Your task to perform on an android device: change keyboard looks Image 0: 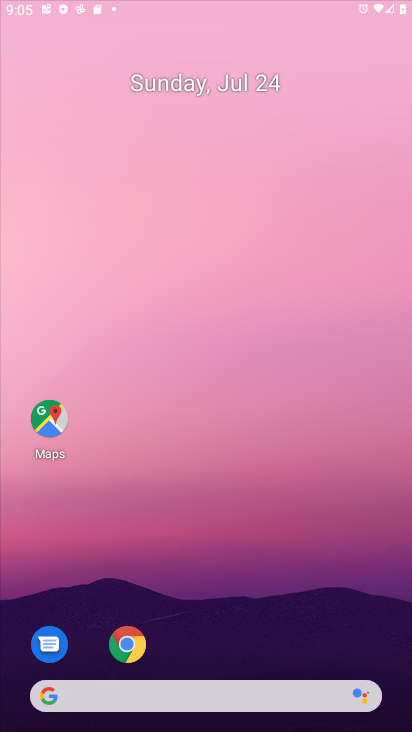
Step 0: drag from (303, 614) to (307, 107)
Your task to perform on an android device: change keyboard looks Image 1: 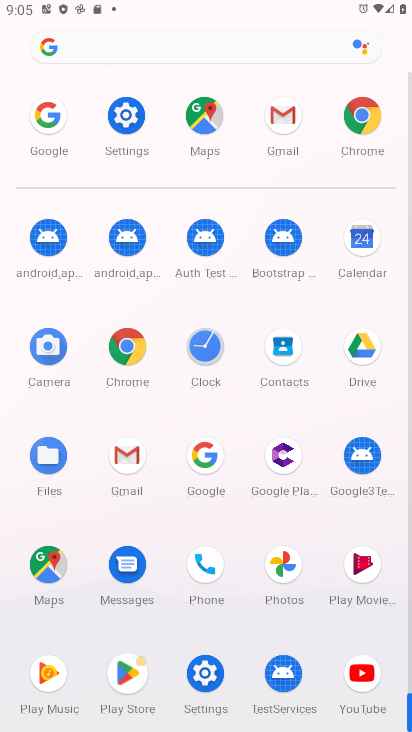
Step 1: click (198, 662)
Your task to perform on an android device: change keyboard looks Image 2: 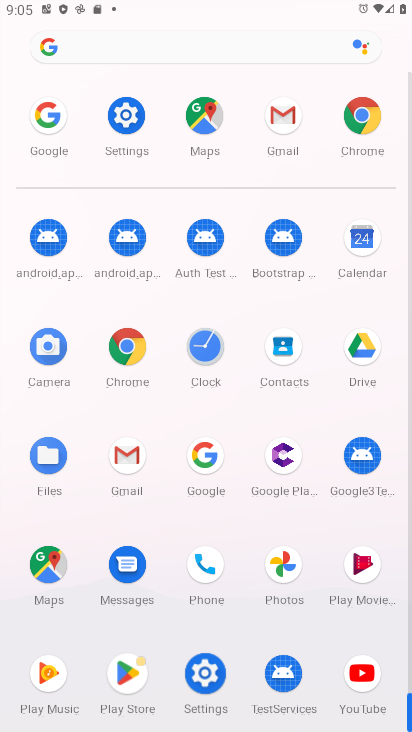
Step 2: click (198, 663)
Your task to perform on an android device: change keyboard looks Image 3: 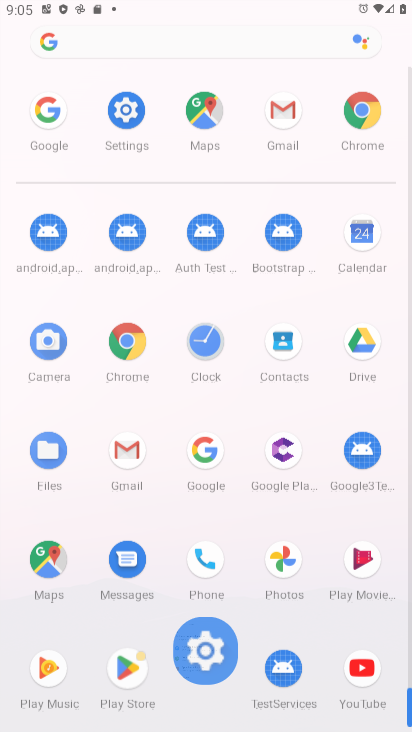
Step 3: click (197, 664)
Your task to perform on an android device: change keyboard looks Image 4: 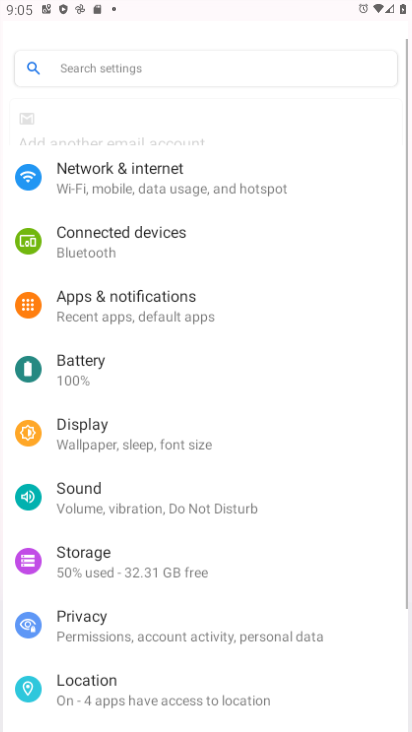
Step 4: click (197, 665)
Your task to perform on an android device: change keyboard looks Image 5: 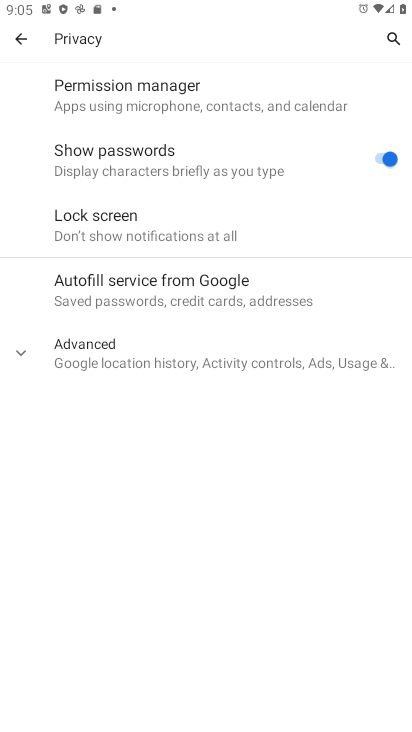
Step 5: drag from (154, 591) to (188, 310)
Your task to perform on an android device: change keyboard looks Image 6: 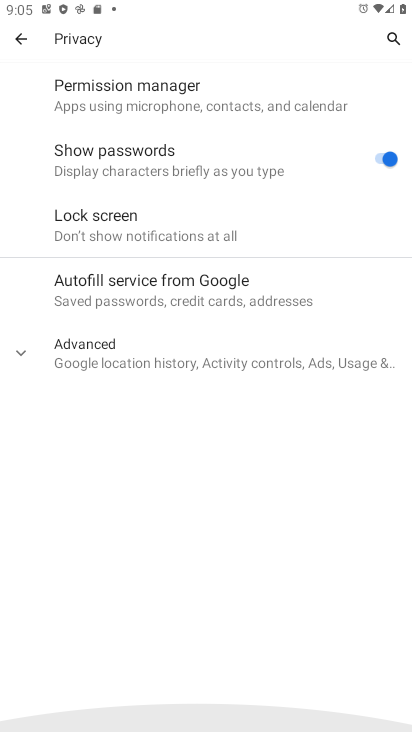
Step 6: drag from (207, 565) to (212, 290)
Your task to perform on an android device: change keyboard looks Image 7: 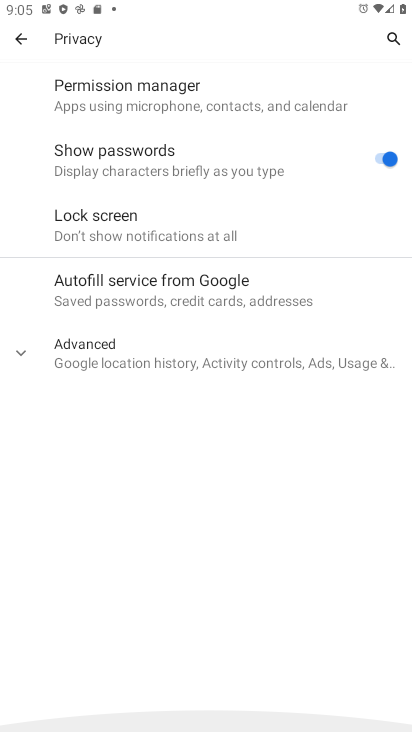
Step 7: click (205, 396)
Your task to perform on an android device: change keyboard looks Image 8: 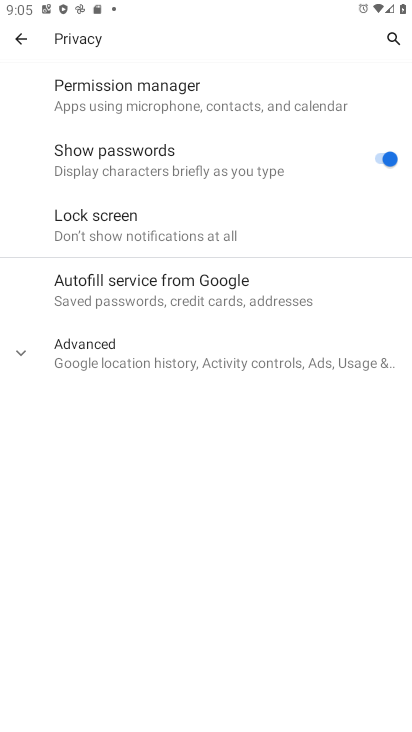
Step 8: click (17, 31)
Your task to perform on an android device: change keyboard looks Image 9: 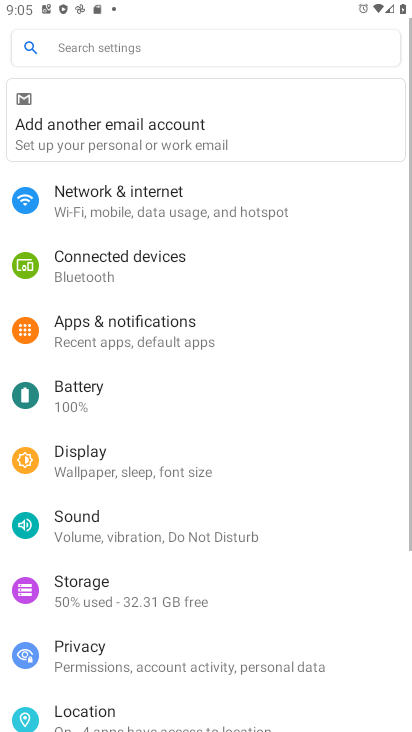
Step 9: drag from (128, 519) to (132, 282)
Your task to perform on an android device: change keyboard looks Image 10: 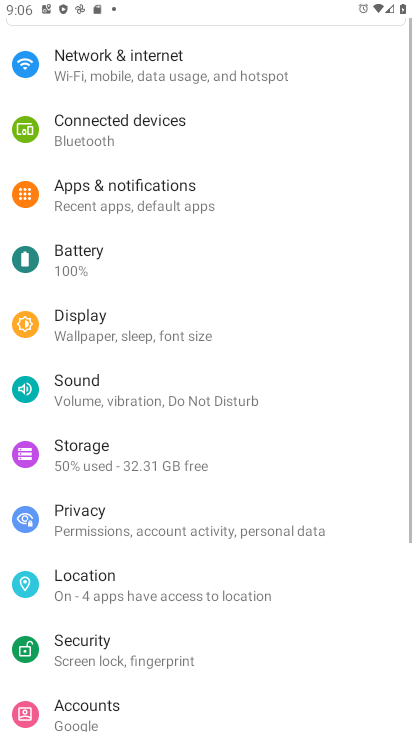
Step 10: drag from (151, 498) to (171, 388)
Your task to perform on an android device: change keyboard looks Image 11: 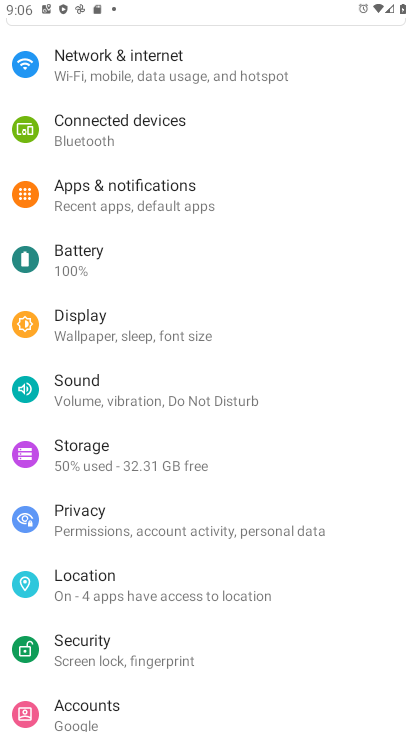
Step 11: drag from (195, 626) to (208, 280)
Your task to perform on an android device: change keyboard looks Image 12: 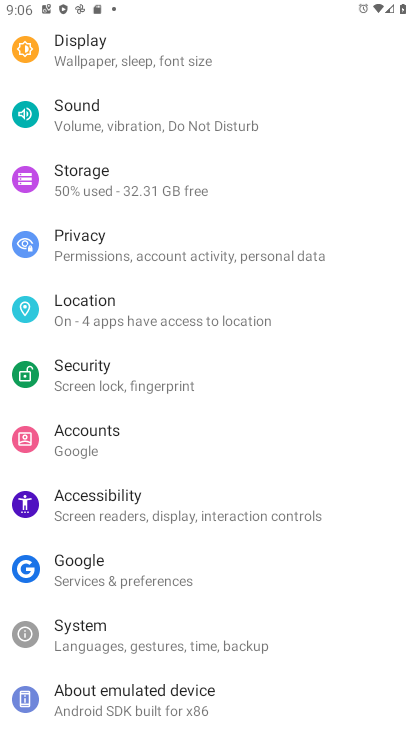
Step 12: click (86, 638)
Your task to perform on an android device: change keyboard looks Image 13: 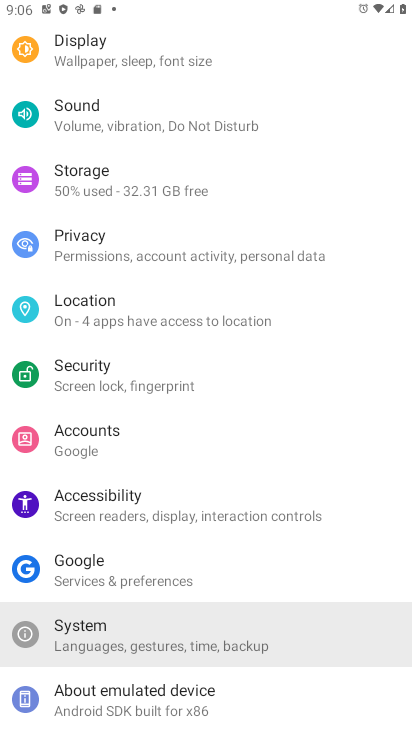
Step 13: click (86, 636)
Your task to perform on an android device: change keyboard looks Image 14: 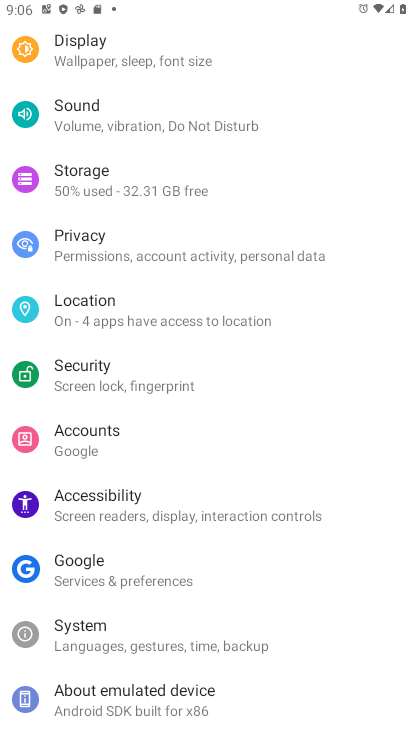
Step 14: click (86, 636)
Your task to perform on an android device: change keyboard looks Image 15: 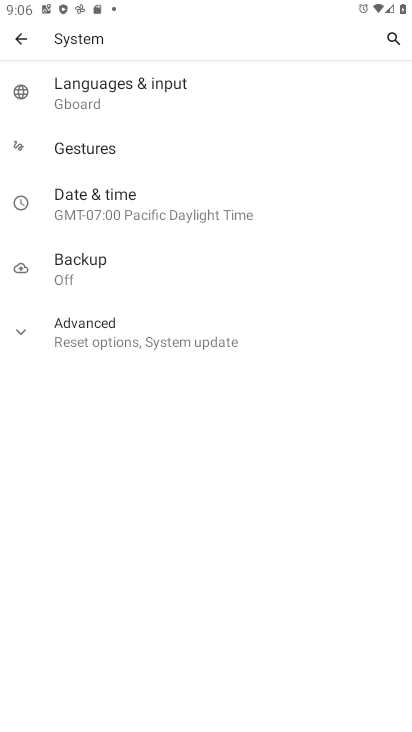
Step 15: click (81, 95)
Your task to perform on an android device: change keyboard looks Image 16: 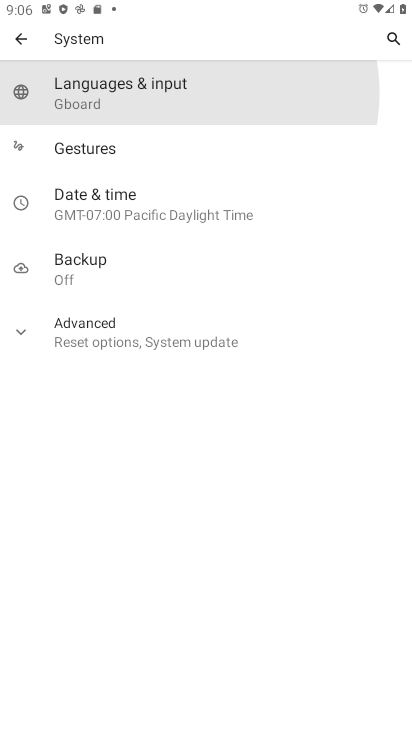
Step 16: click (81, 95)
Your task to perform on an android device: change keyboard looks Image 17: 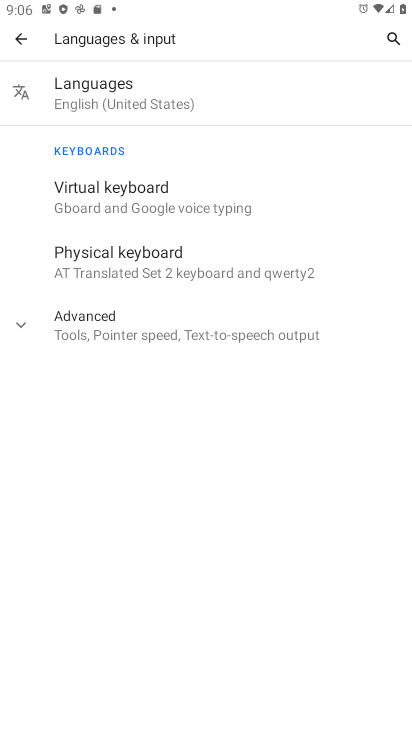
Step 17: click (112, 190)
Your task to perform on an android device: change keyboard looks Image 18: 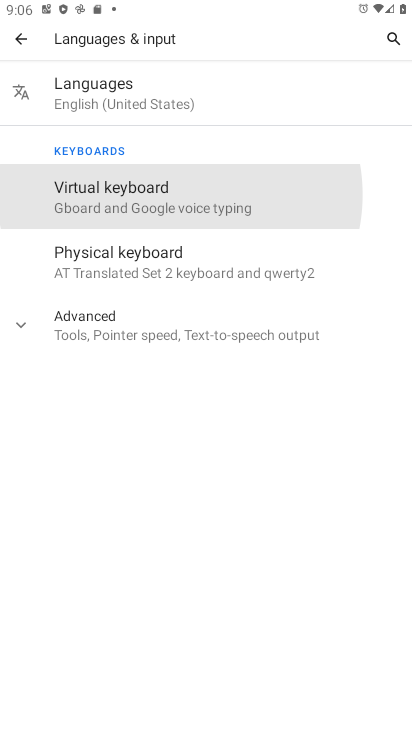
Step 18: click (112, 190)
Your task to perform on an android device: change keyboard looks Image 19: 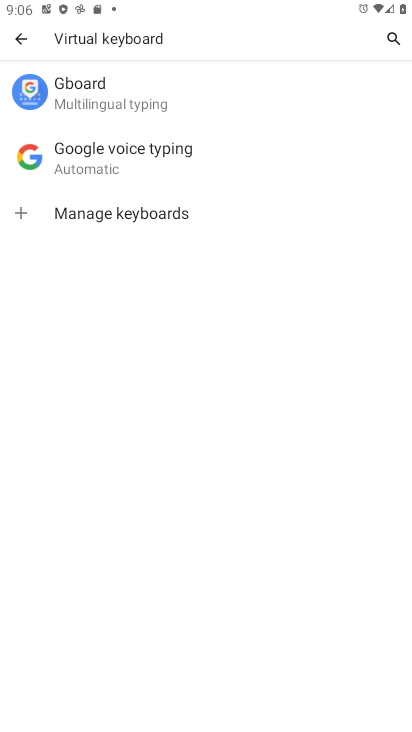
Step 19: click (101, 98)
Your task to perform on an android device: change keyboard looks Image 20: 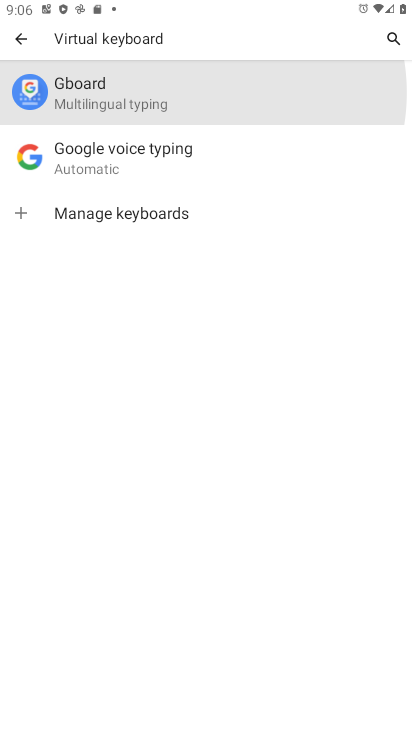
Step 20: click (99, 97)
Your task to perform on an android device: change keyboard looks Image 21: 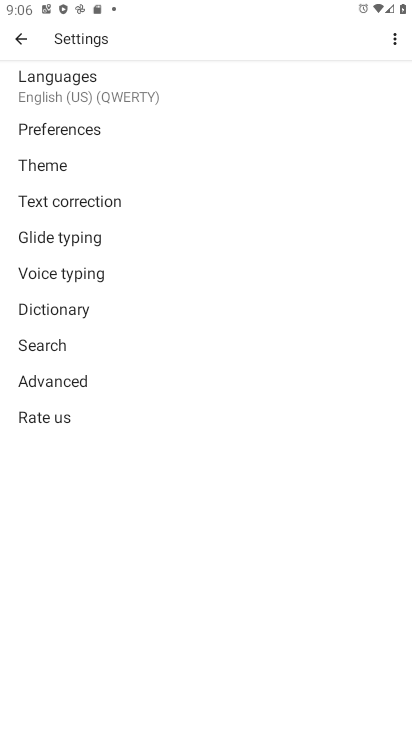
Step 21: click (46, 159)
Your task to perform on an android device: change keyboard looks Image 22: 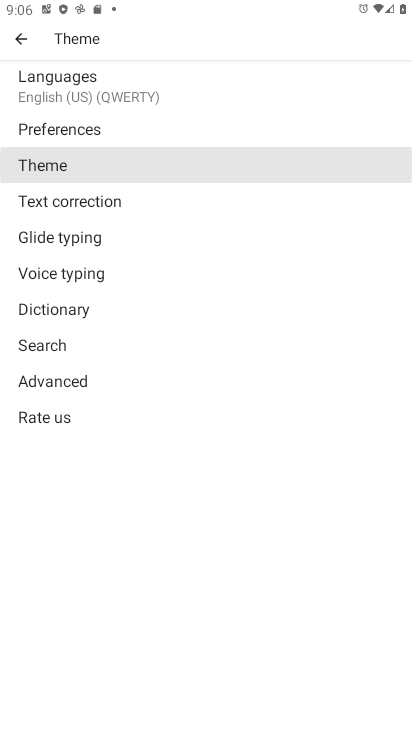
Step 22: click (46, 159)
Your task to perform on an android device: change keyboard looks Image 23: 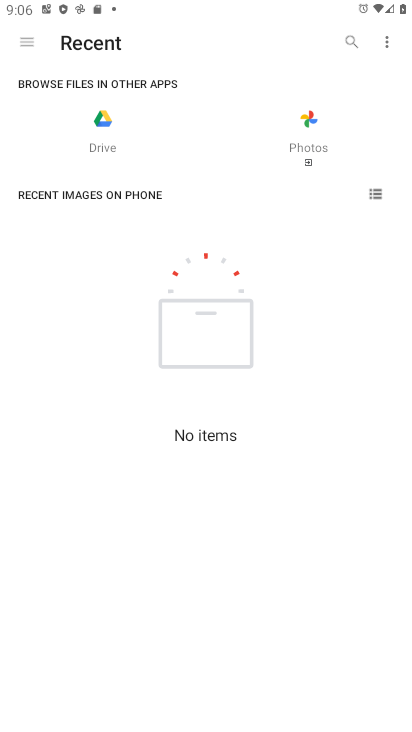
Step 23: press back button
Your task to perform on an android device: change keyboard looks Image 24: 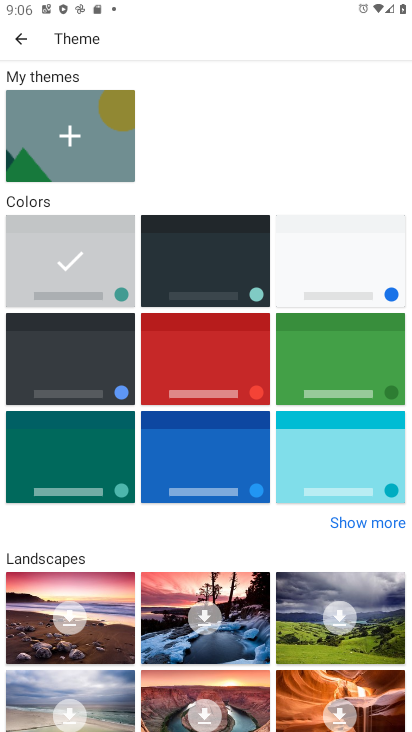
Step 24: click (68, 357)
Your task to perform on an android device: change keyboard looks Image 25: 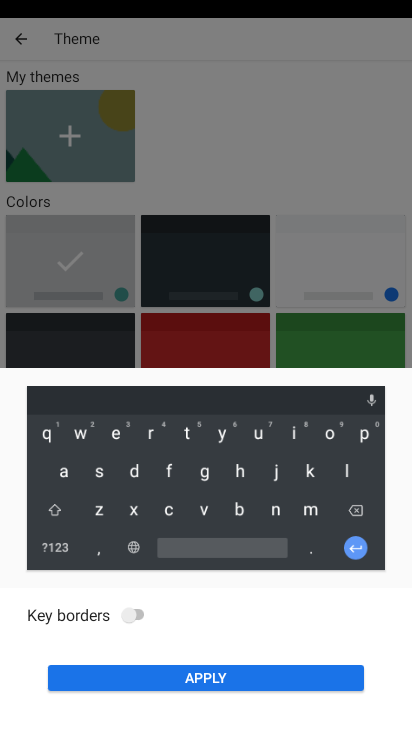
Step 25: click (202, 671)
Your task to perform on an android device: change keyboard looks Image 26: 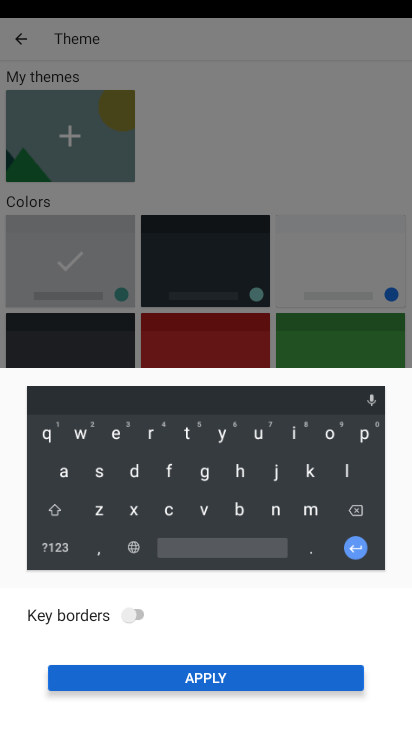
Step 26: click (207, 667)
Your task to perform on an android device: change keyboard looks Image 27: 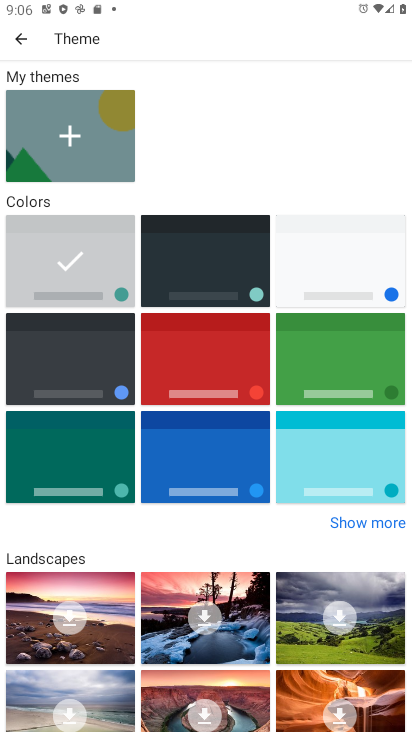
Step 27: click (215, 670)
Your task to perform on an android device: change keyboard looks Image 28: 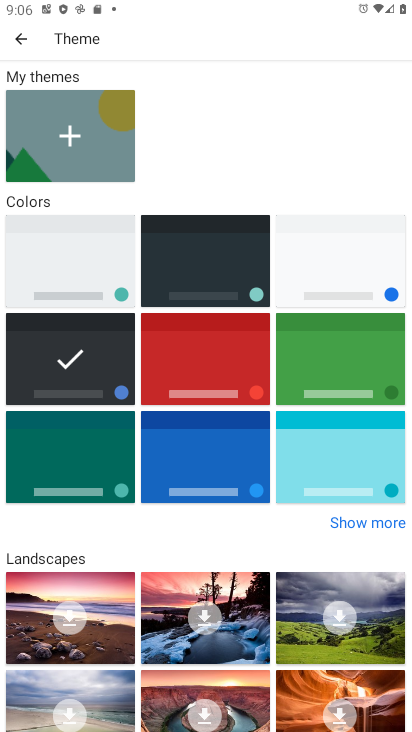
Step 28: task complete